Your task to perform on an android device: check battery use Image 0: 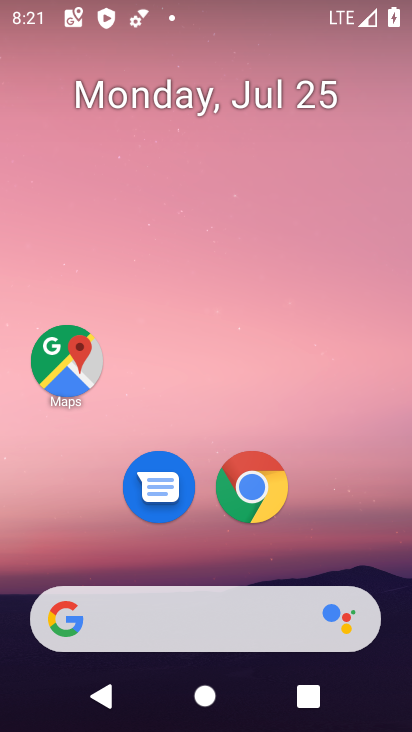
Step 0: drag from (204, 513) to (282, 0)
Your task to perform on an android device: check battery use Image 1: 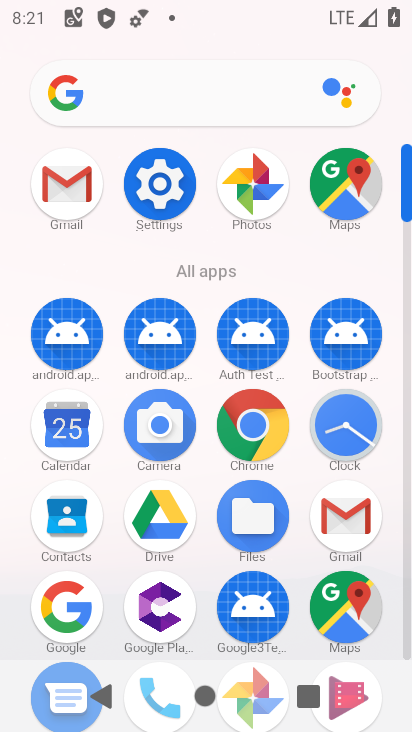
Step 1: click (163, 179)
Your task to perform on an android device: check battery use Image 2: 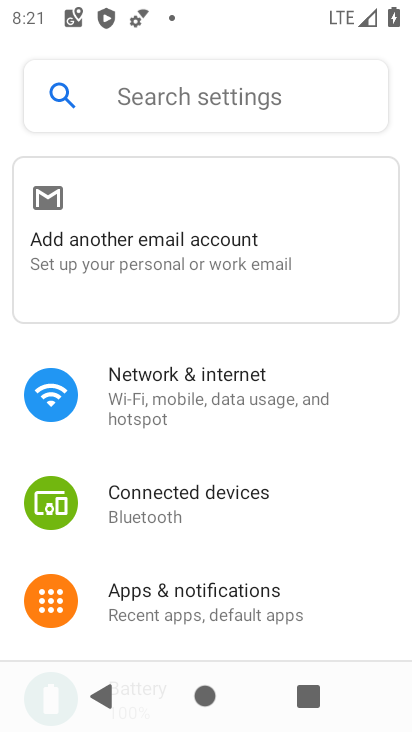
Step 2: drag from (158, 601) to (232, 43)
Your task to perform on an android device: check battery use Image 3: 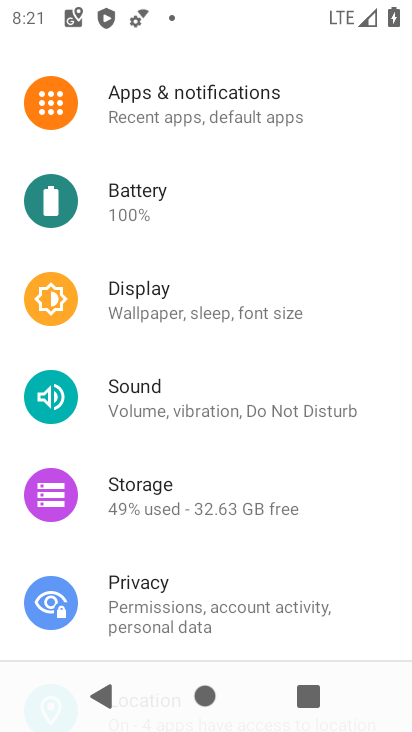
Step 3: click (113, 195)
Your task to perform on an android device: check battery use Image 4: 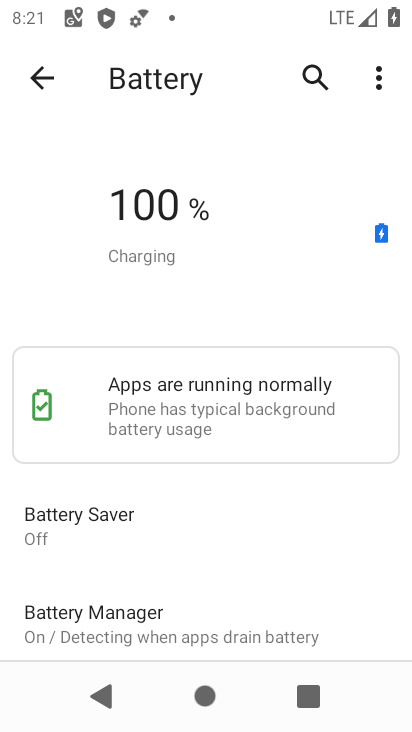
Step 4: click (373, 66)
Your task to perform on an android device: check battery use Image 5: 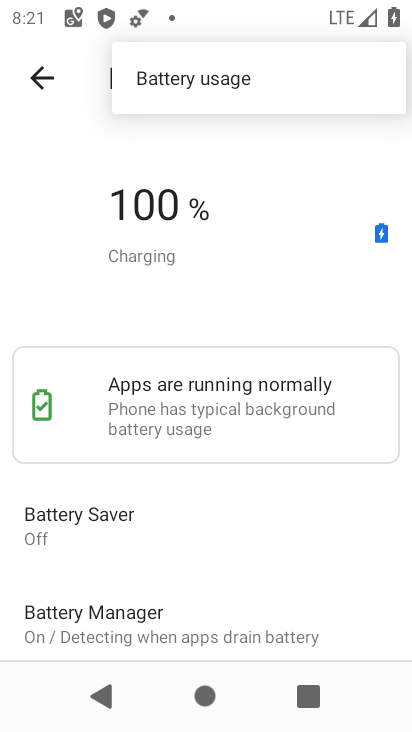
Step 5: click (309, 88)
Your task to perform on an android device: check battery use Image 6: 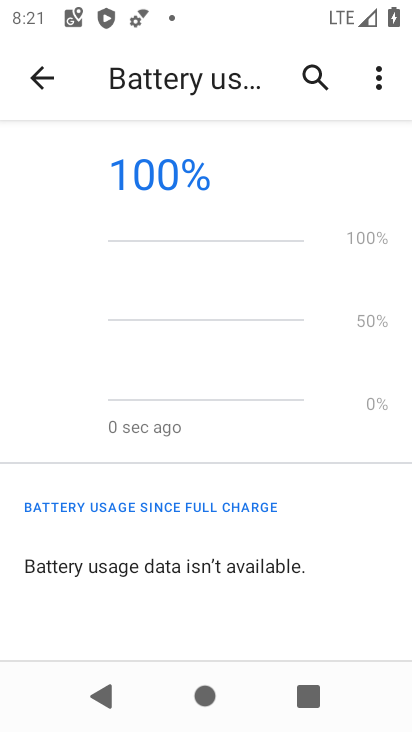
Step 6: task complete